Your task to perform on an android device: Open Google Maps Image 0: 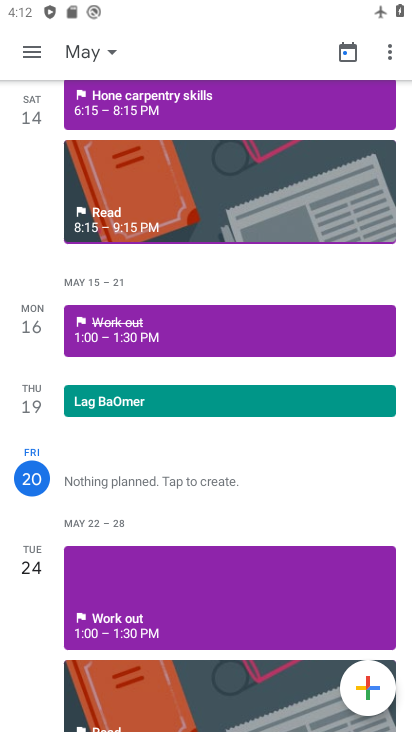
Step 0: press home button
Your task to perform on an android device: Open Google Maps Image 1: 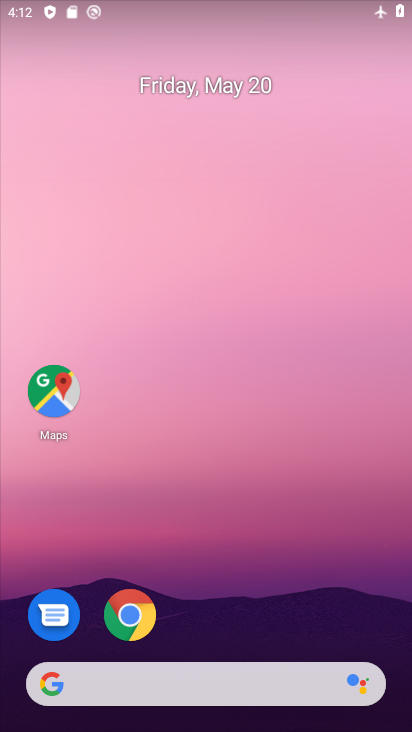
Step 1: drag from (200, 596) to (327, 128)
Your task to perform on an android device: Open Google Maps Image 2: 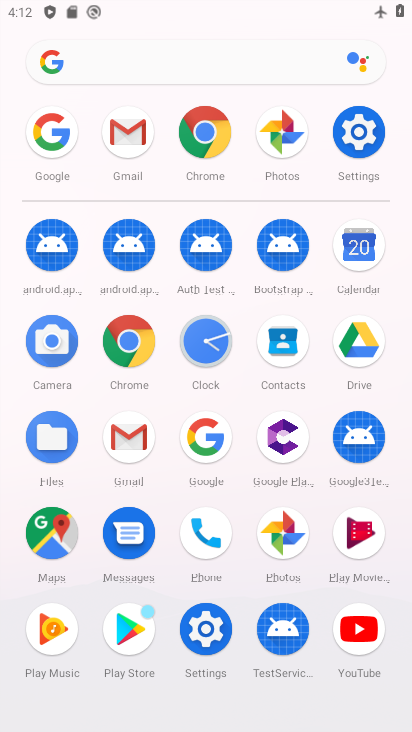
Step 2: drag from (255, 568) to (293, 244)
Your task to perform on an android device: Open Google Maps Image 3: 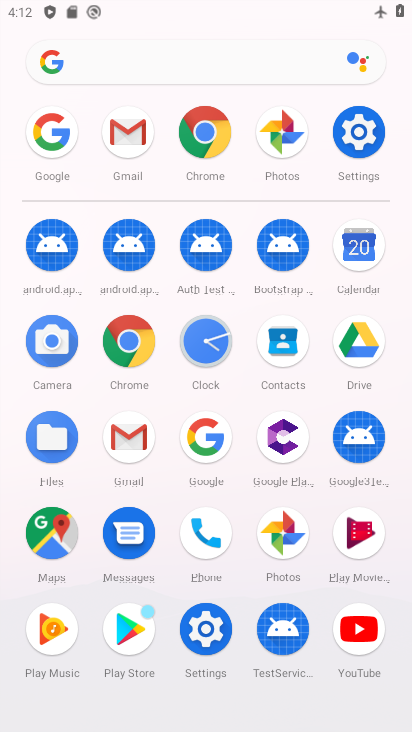
Step 3: click (58, 530)
Your task to perform on an android device: Open Google Maps Image 4: 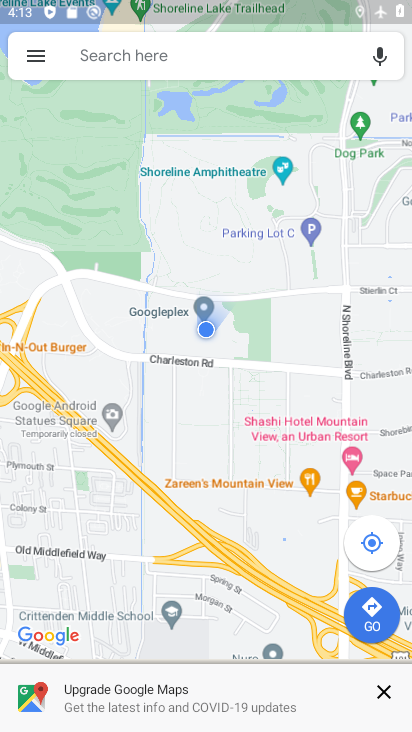
Step 4: task complete